Your task to perform on an android device: turn off translation in the chrome app Image 0: 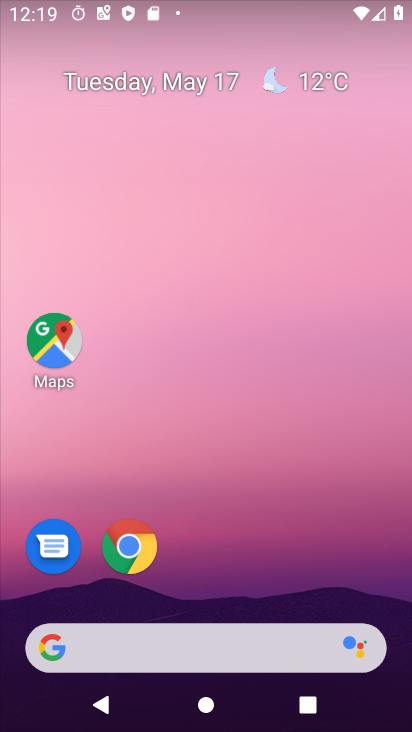
Step 0: click (136, 549)
Your task to perform on an android device: turn off translation in the chrome app Image 1: 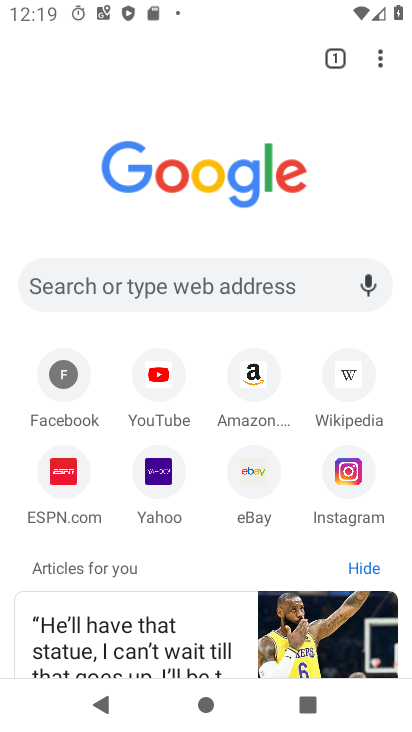
Step 1: drag from (376, 55) to (214, 502)
Your task to perform on an android device: turn off translation in the chrome app Image 2: 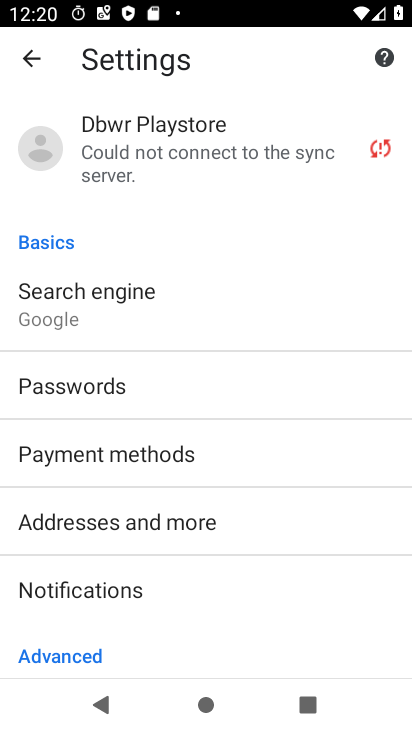
Step 2: drag from (252, 594) to (305, 292)
Your task to perform on an android device: turn off translation in the chrome app Image 3: 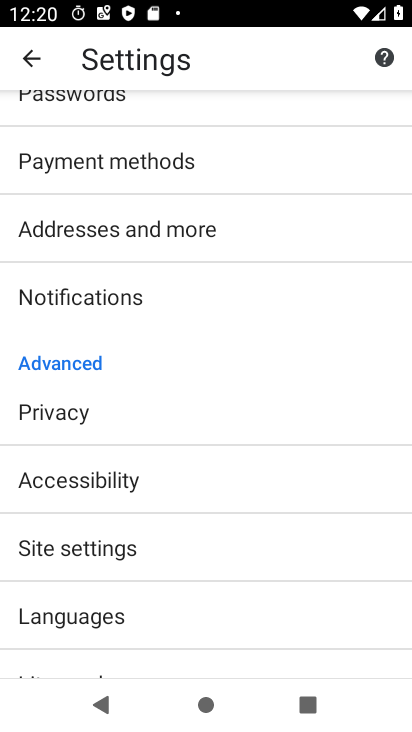
Step 3: click (94, 615)
Your task to perform on an android device: turn off translation in the chrome app Image 4: 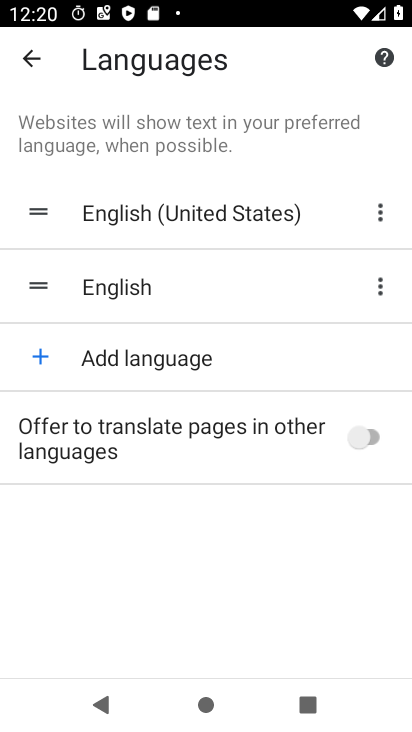
Step 4: task complete